Your task to perform on an android device: Turn on the flashlight Image 0: 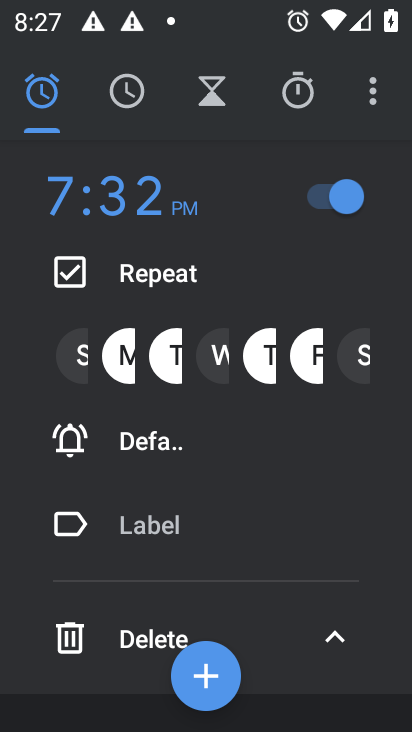
Step 0: press home button
Your task to perform on an android device: Turn on the flashlight Image 1: 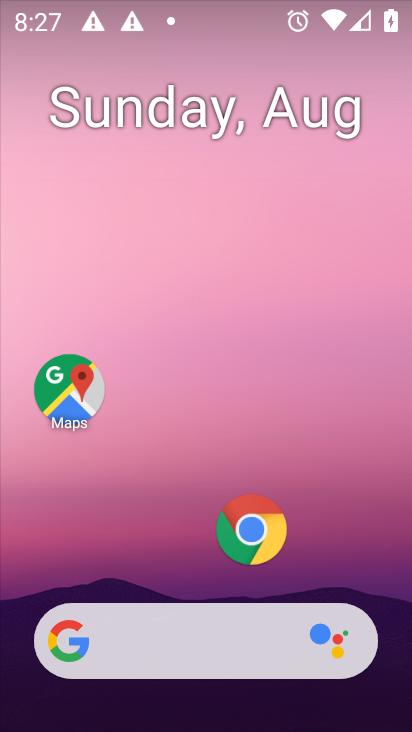
Step 1: drag from (174, 539) to (155, 135)
Your task to perform on an android device: Turn on the flashlight Image 2: 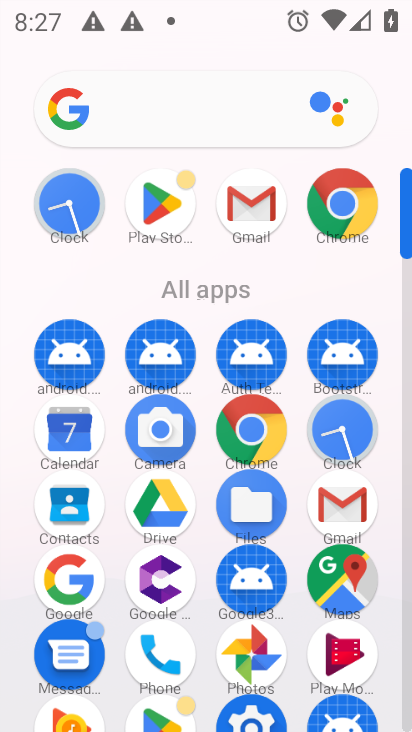
Step 2: drag from (194, 632) to (200, 441)
Your task to perform on an android device: Turn on the flashlight Image 3: 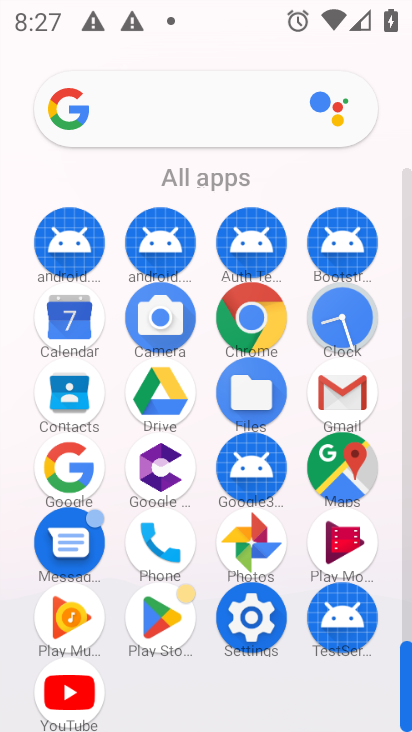
Step 3: click (244, 625)
Your task to perform on an android device: Turn on the flashlight Image 4: 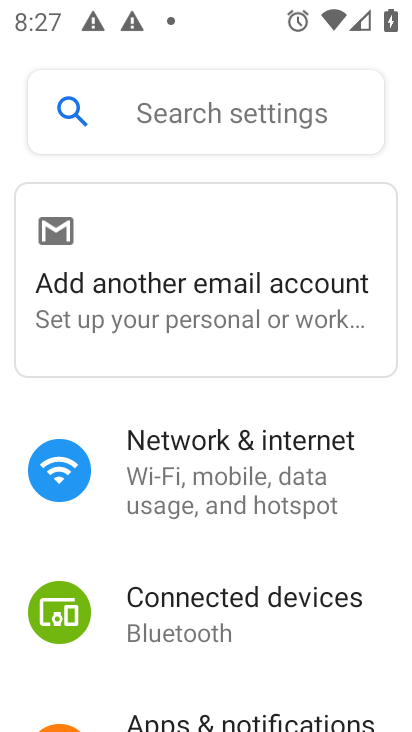
Step 4: click (254, 105)
Your task to perform on an android device: Turn on the flashlight Image 5: 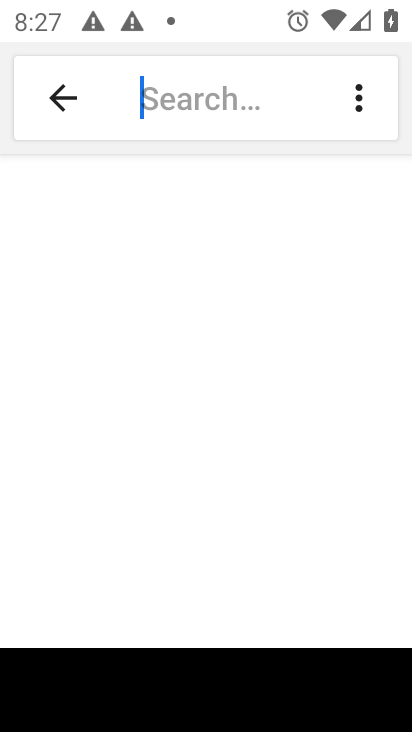
Step 5: type "flashlight"
Your task to perform on an android device: Turn on the flashlight Image 6: 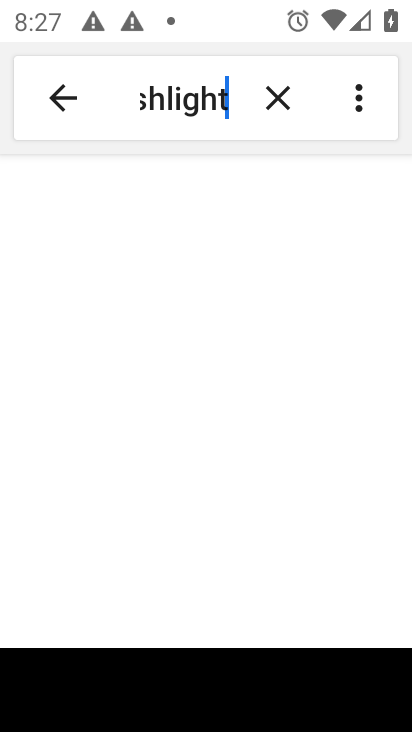
Step 6: click (157, 210)
Your task to perform on an android device: Turn on the flashlight Image 7: 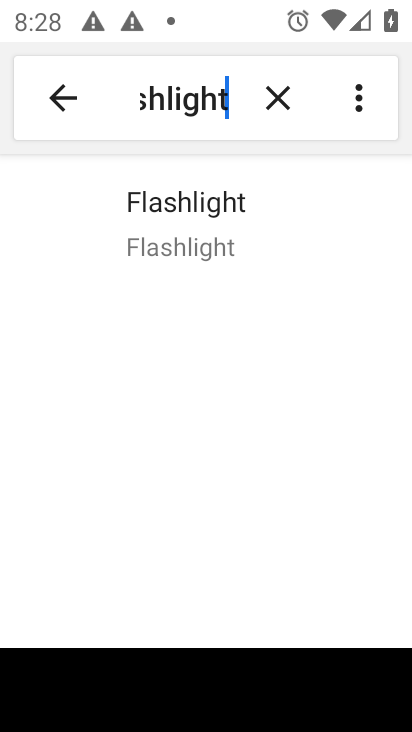
Step 7: click (157, 210)
Your task to perform on an android device: Turn on the flashlight Image 8: 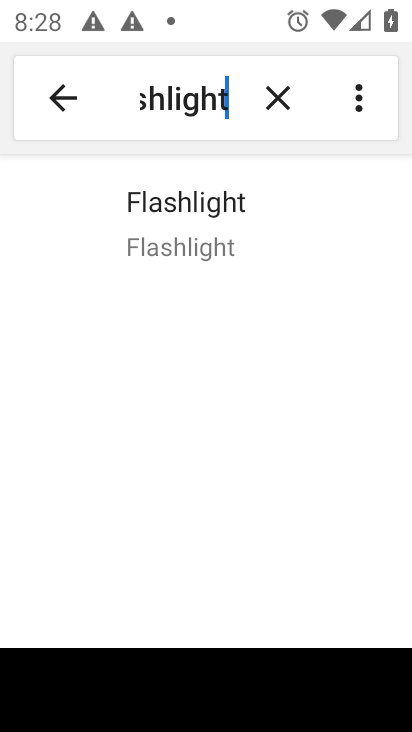
Step 8: click (192, 217)
Your task to perform on an android device: Turn on the flashlight Image 9: 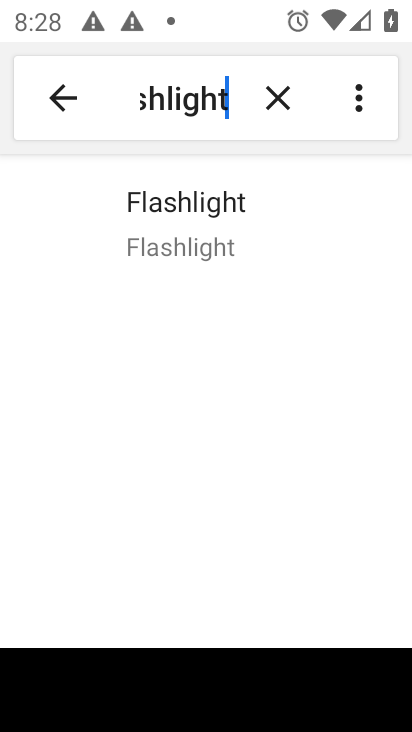
Step 9: task complete